Your task to perform on an android device: Add panasonic triple a to the cart on ebay, then select checkout. Image 0: 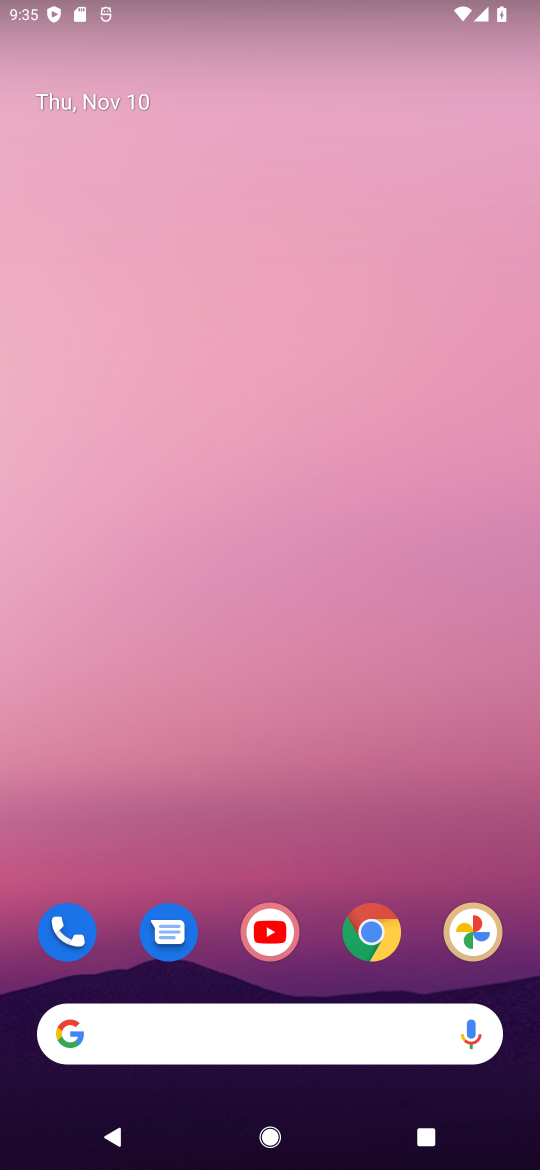
Step 0: click (385, 937)
Your task to perform on an android device: Add panasonic triple a to the cart on ebay, then select checkout. Image 1: 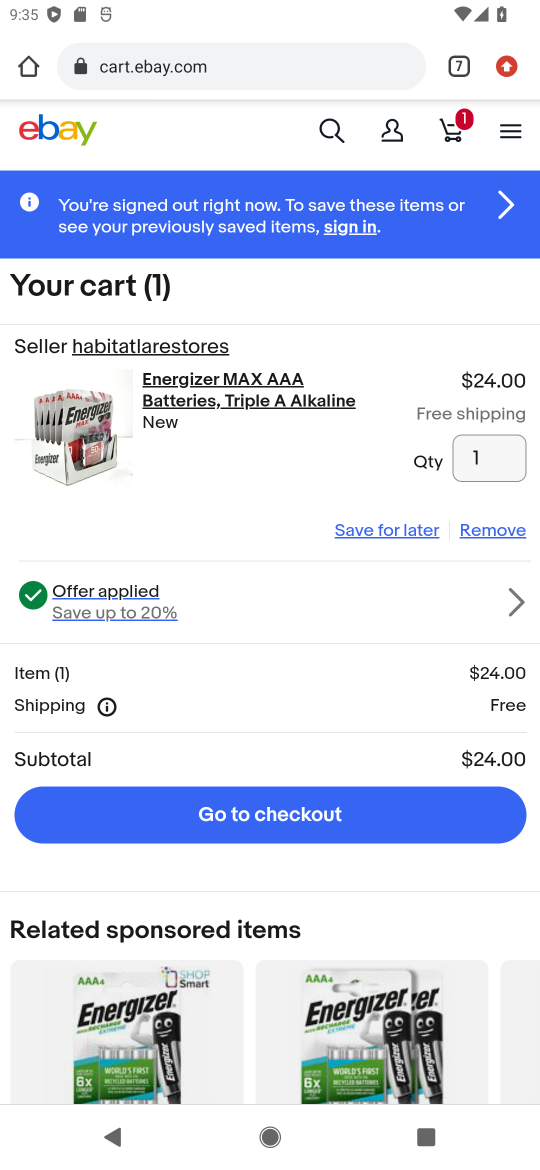
Step 1: click (327, 133)
Your task to perform on an android device: Add panasonic triple a to the cart on ebay, then select checkout. Image 2: 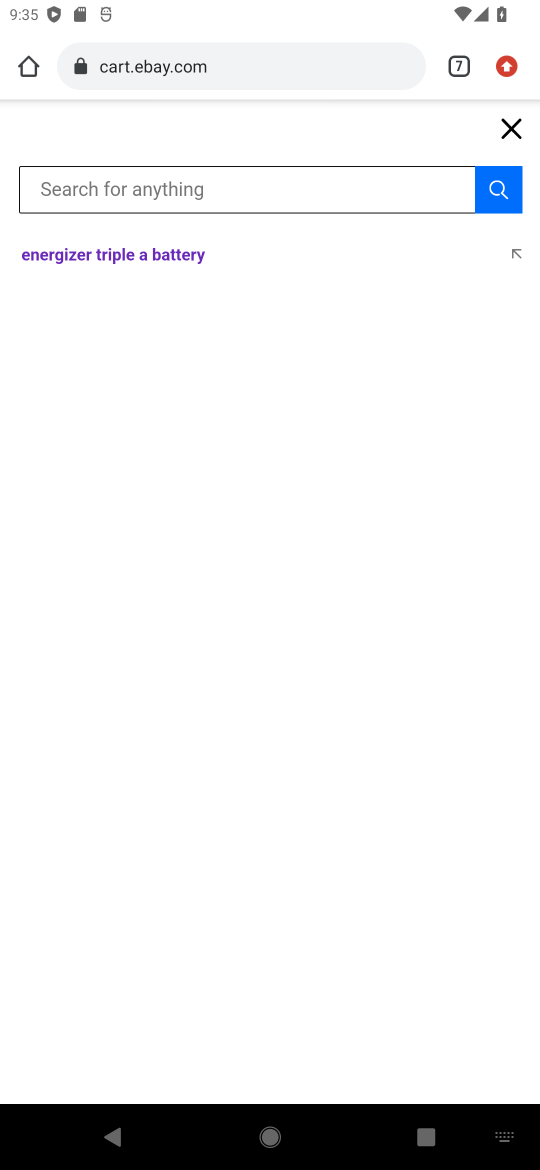
Step 2: type "panasonic triple a"
Your task to perform on an android device: Add panasonic triple a to the cart on ebay, then select checkout. Image 3: 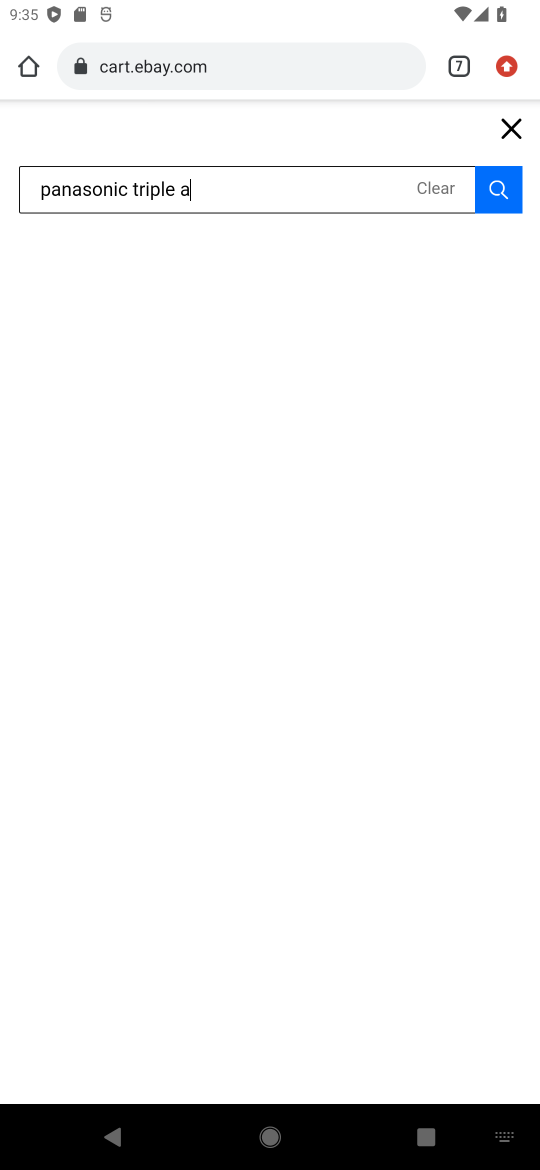
Step 3: click (493, 193)
Your task to perform on an android device: Add panasonic triple a to the cart on ebay, then select checkout. Image 4: 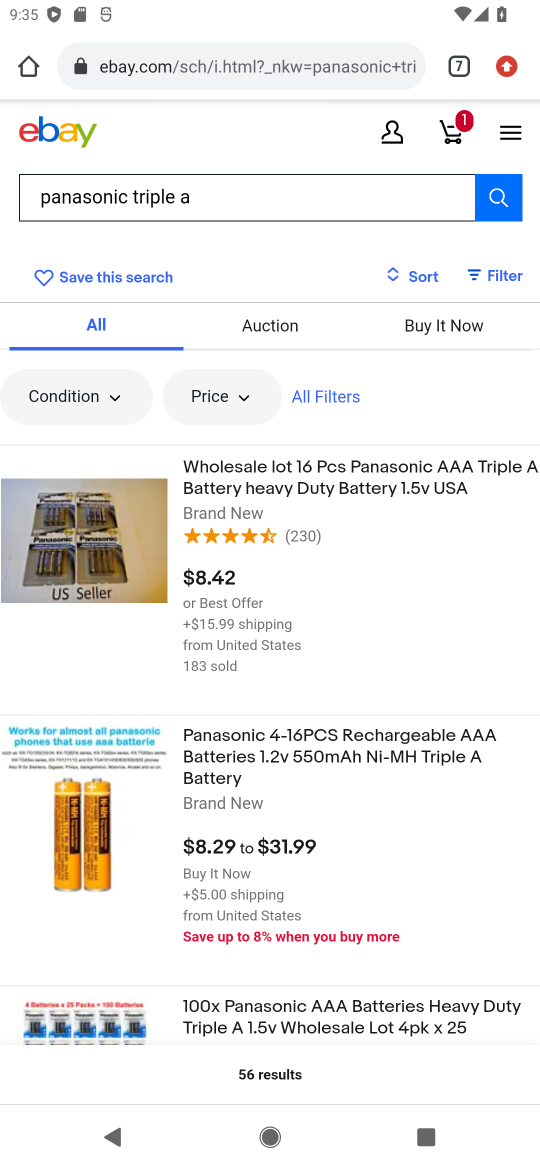
Step 4: click (338, 745)
Your task to perform on an android device: Add panasonic triple a to the cart on ebay, then select checkout. Image 5: 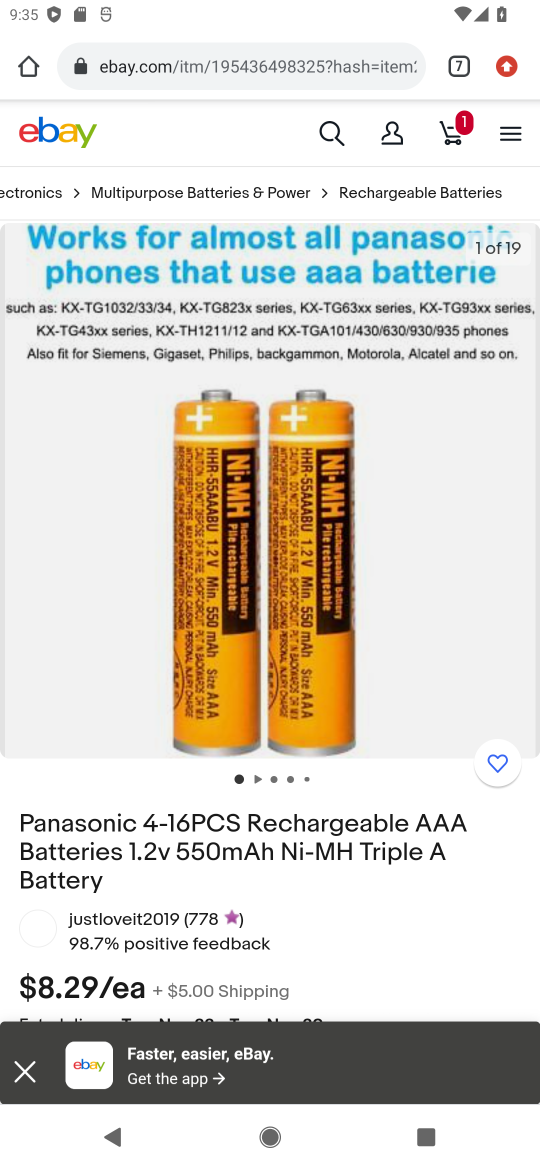
Step 5: click (31, 1070)
Your task to perform on an android device: Add panasonic triple a to the cart on ebay, then select checkout. Image 6: 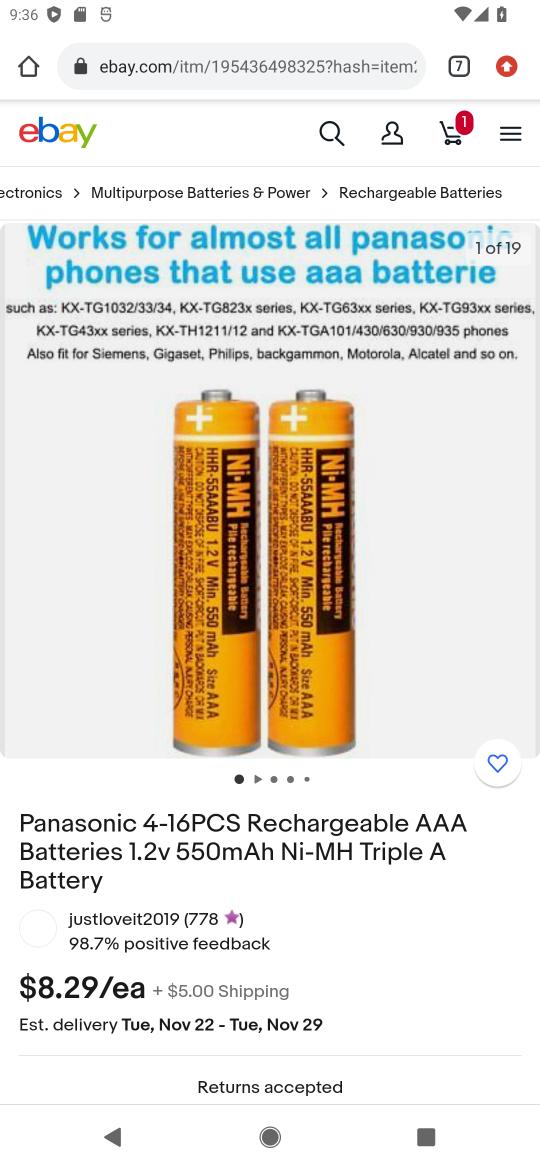
Step 6: drag from (182, 1010) to (95, 540)
Your task to perform on an android device: Add panasonic triple a to the cart on ebay, then select checkout. Image 7: 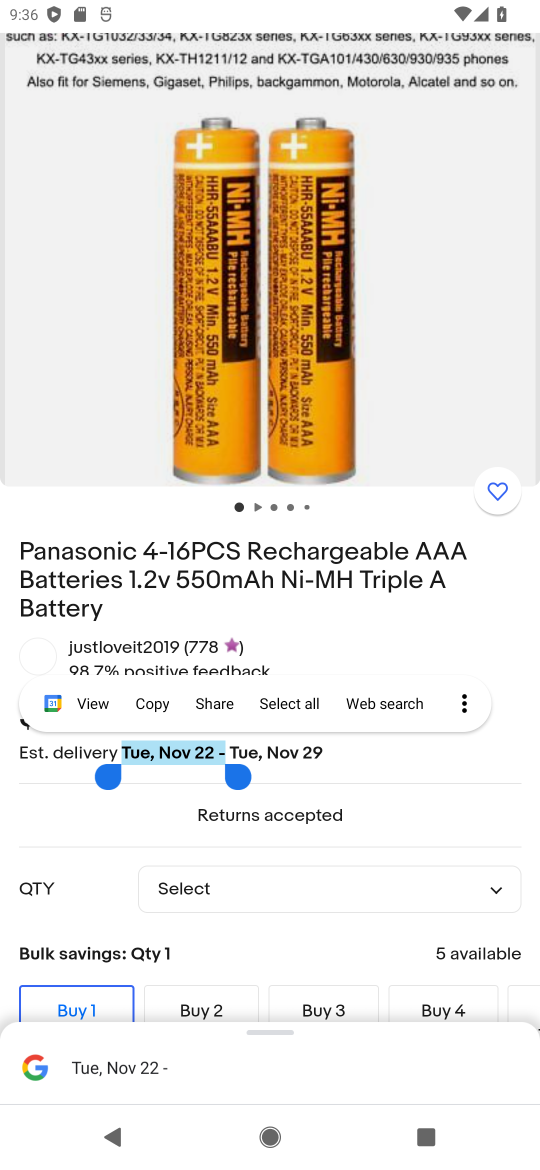
Step 7: drag from (370, 903) to (451, 276)
Your task to perform on an android device: Add panasonic triple a to the cart on ebay, then select checkout. Image 8: 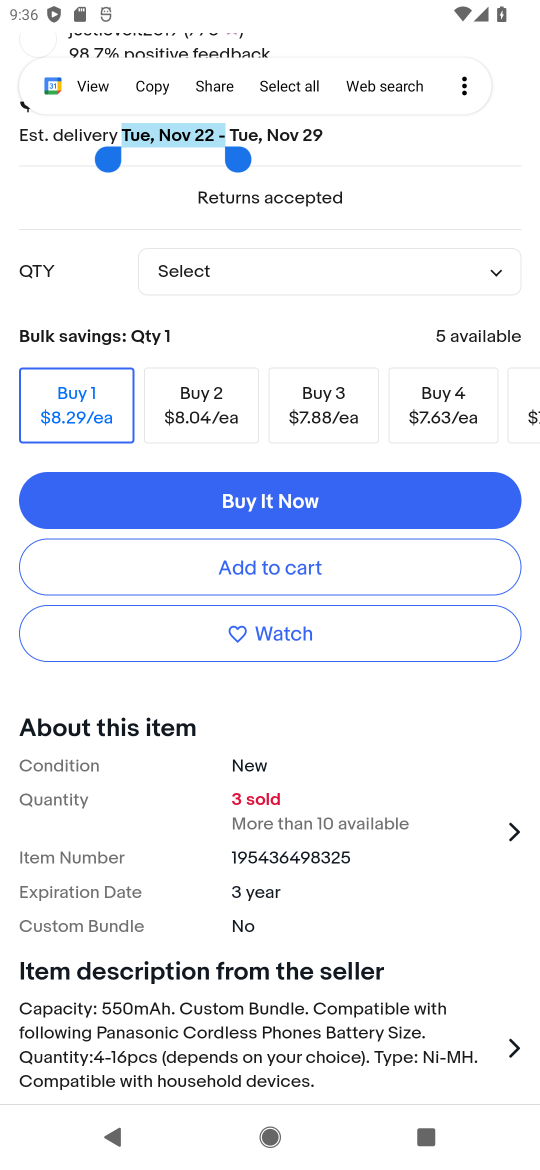
Step 8: click (302, 572)
Your task to perform on an android device: Add panasonic triple a to the cart on ebay, then select checkout. Image 9: 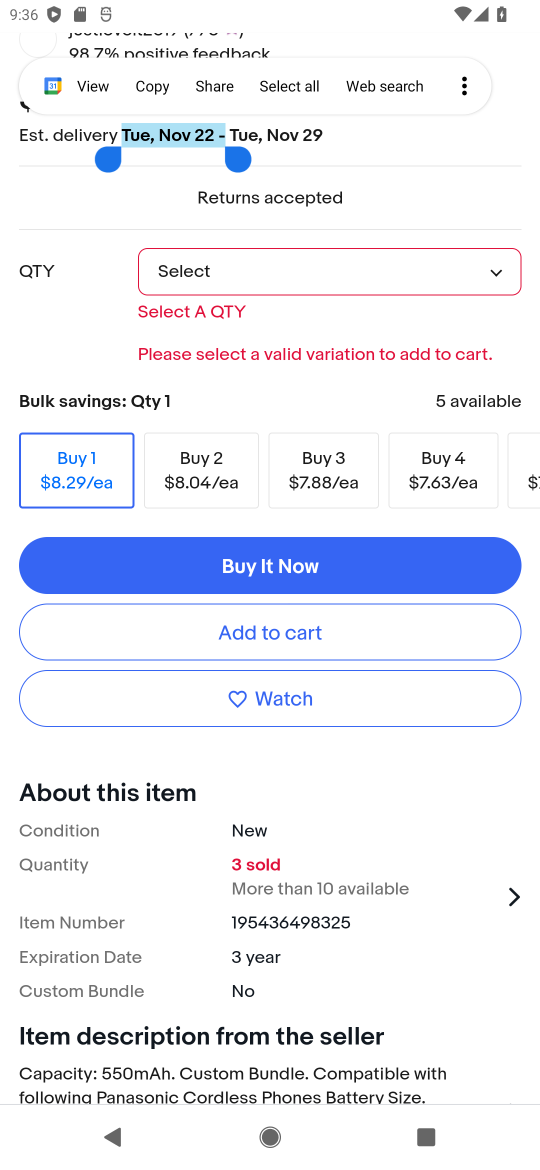
Step 9: click (503, 267)
Your task to perform on an android device: Add panasonic triple a to the cart on ebay, then select checkout. Image 10: 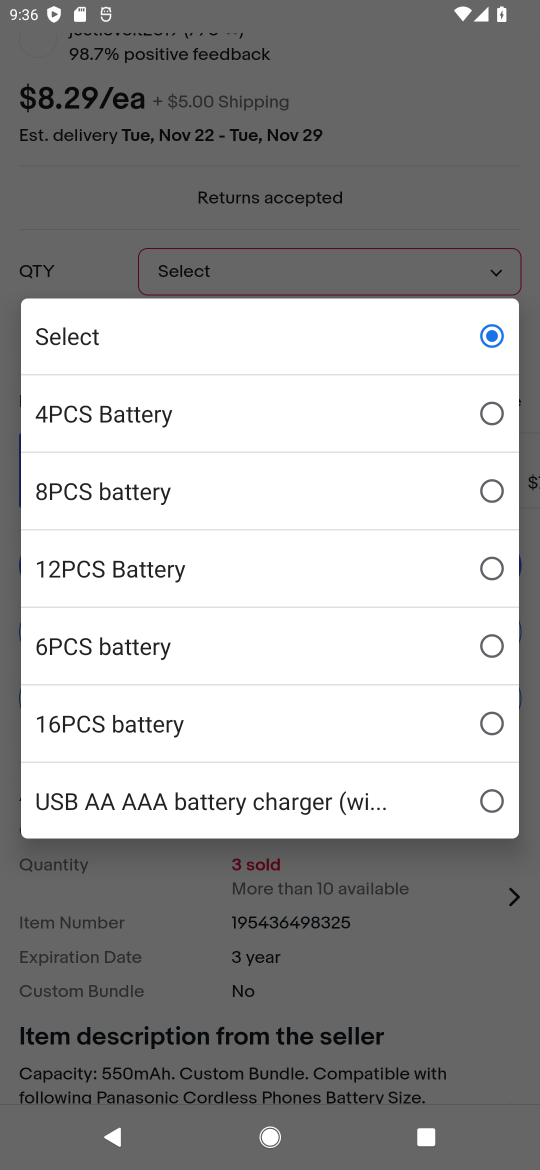
Step 10: click (482, 408)
Your task to perform on an android device: Add panasonic triple a to the cart on ebay, then select checkout. Image 11: 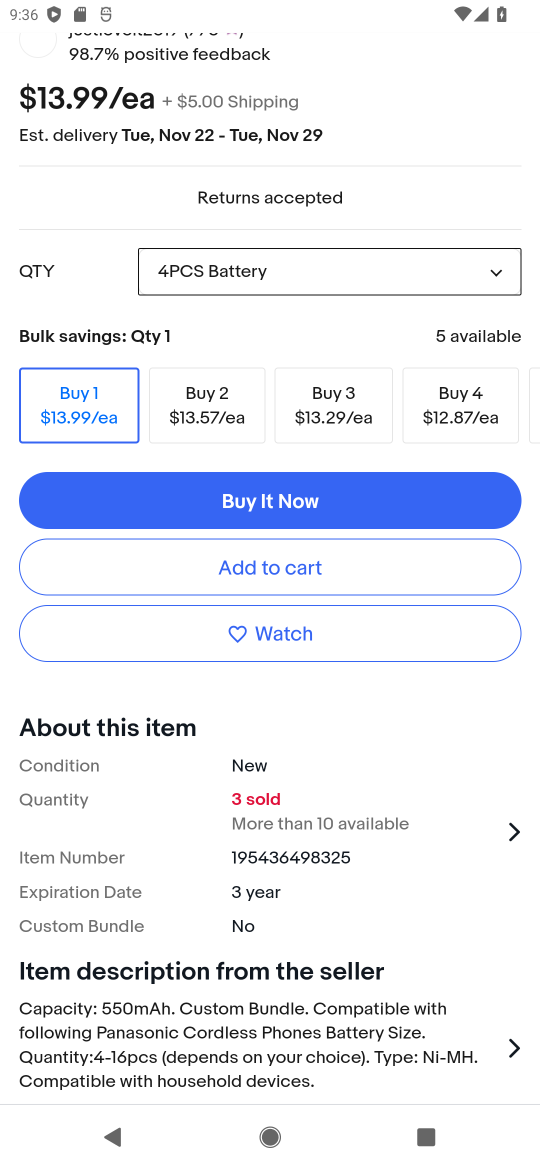
Step 11: click (303, 564)
Your task to perform on an android device: Add panasonic triple a to the cart on ebay, then select checkout. Image 12: 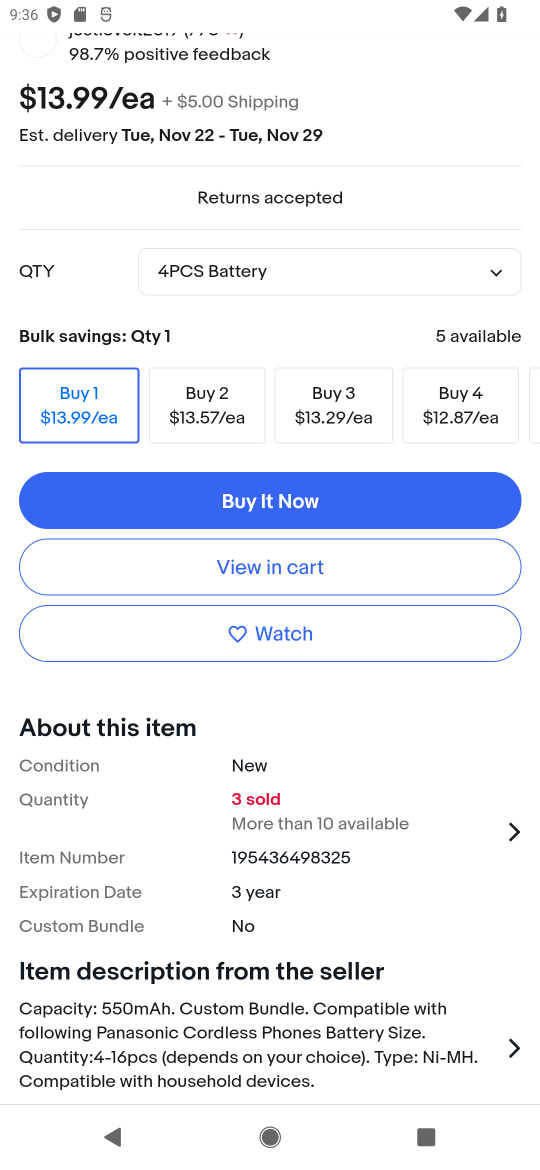
Step 12: click (303, 564)
Your task to perform on an android device: Add panasonic triple a to the cart on ebay, then select checkout. Image 13: 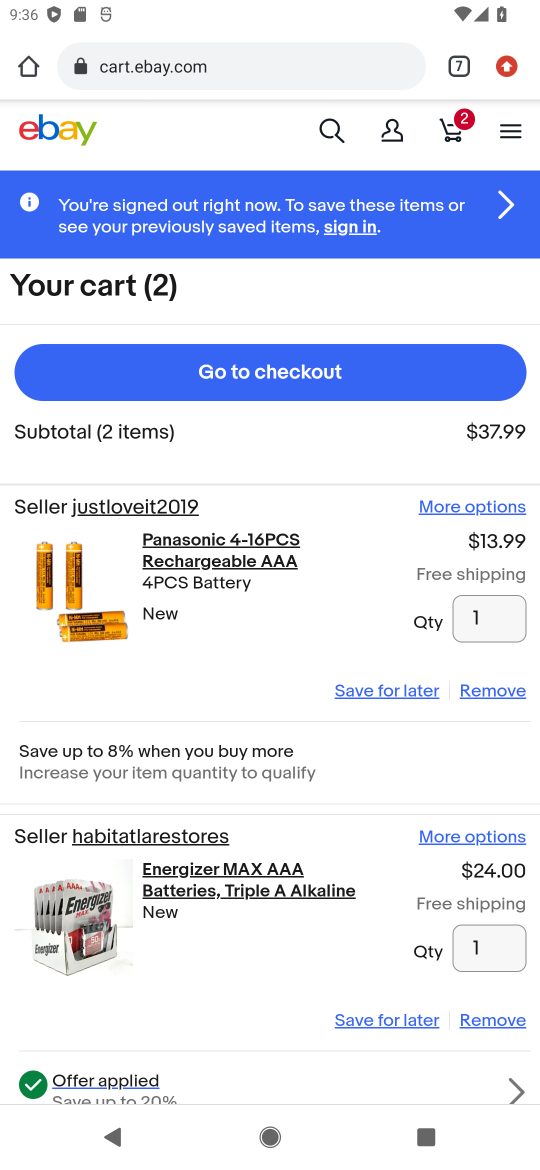
Step 13: click (343, 388)
Your task to perform on an android device: Add panasonic triple a to the cart on ebay, then select checkout. Image 14: 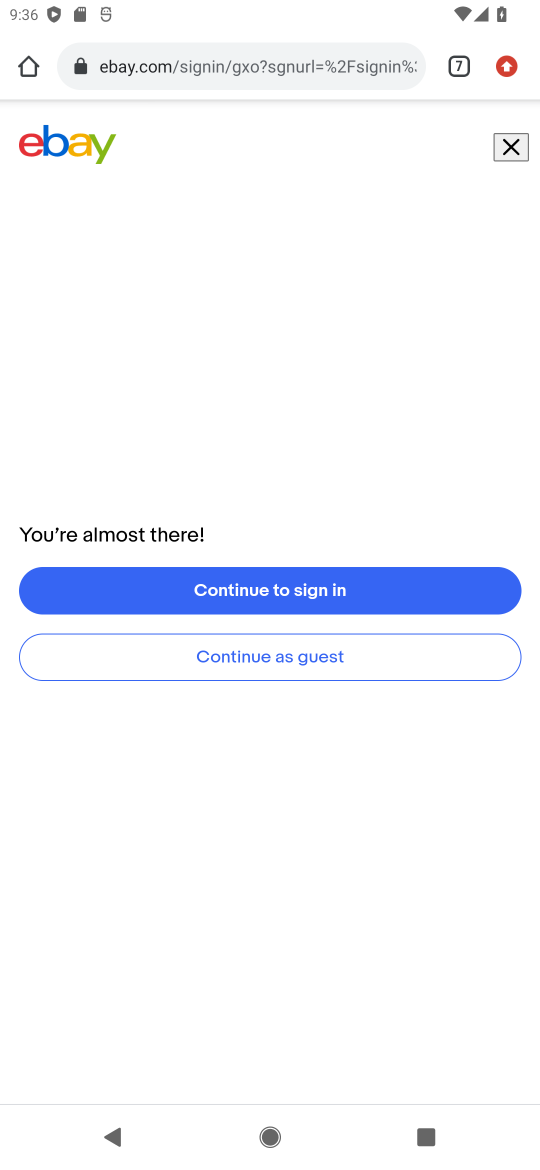
Step 14: task complete